Your task to perform on an android device: turn notification dots on Image 0: 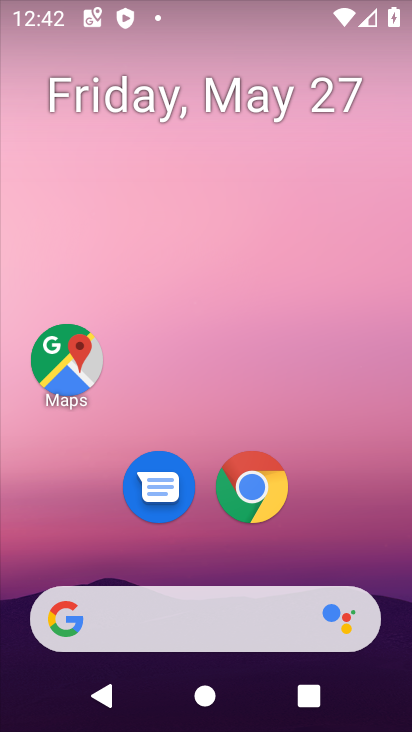
Step 0: drag from (207, 573) to (212, 141)
Your task to perform on an android device: turn notification dots on Image 1: 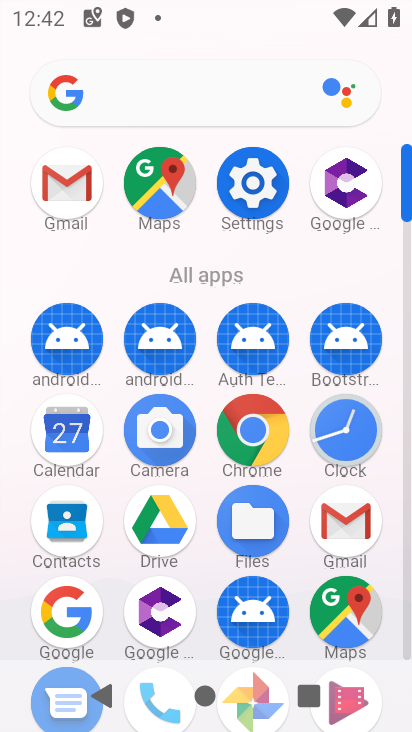
Step 1: click (249, 194)
Your task to perform on an android device: turn notification dots on Image 2: 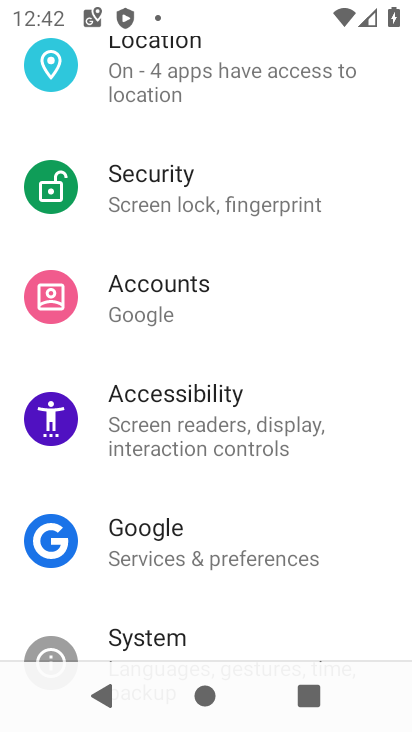
Step 2: drag from (249, 189) to (293, 617)
Your task to perform on an android device: turn notification dots on Image 3: 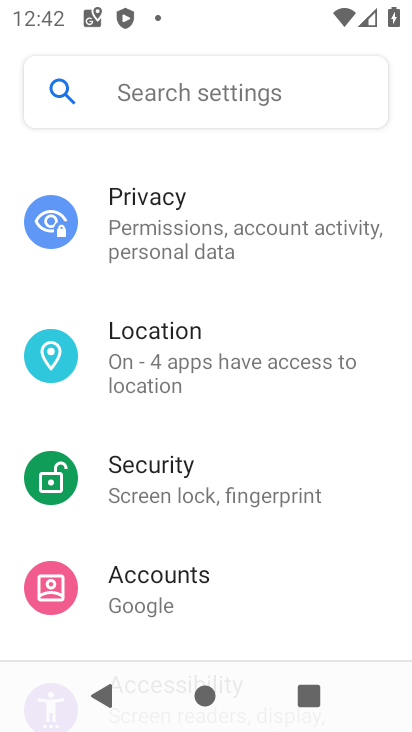
Step 3: drag from (225, 205) to (336, 577)
Your task to perform on an android device: turn notification dots on Image 4: 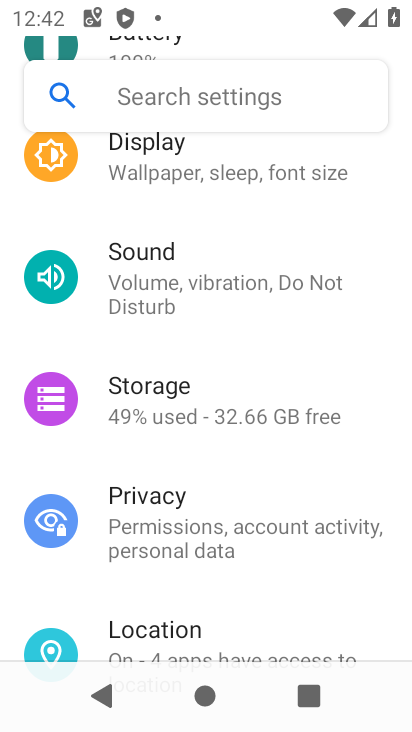
Step 4: drag from (191, 143) to (289, 533)
Your task to perform on an android device: turn notification dots on Image 5: 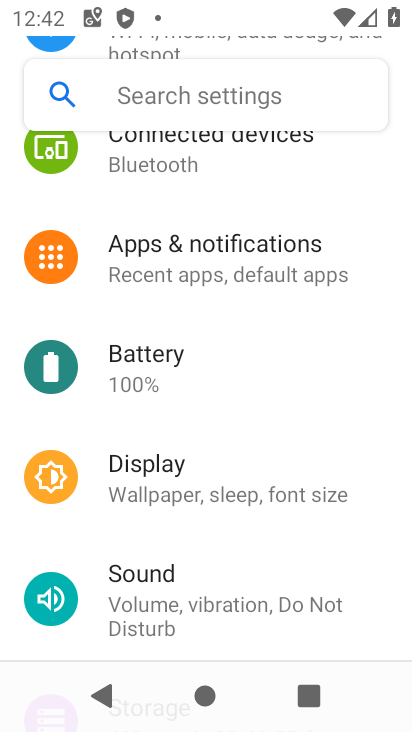
Step 5: click (151, 250)
Your task to perform on an android device: turn notification dots on Image 6: 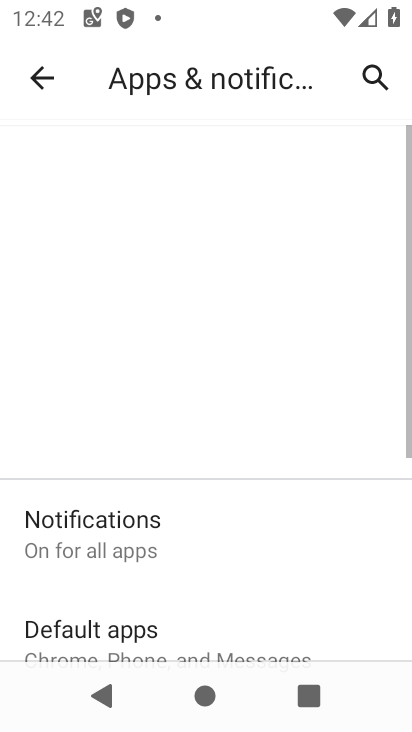
Step 6: click (111, 529)
Your task to perform on an android device: turn notification dots on Image 7: 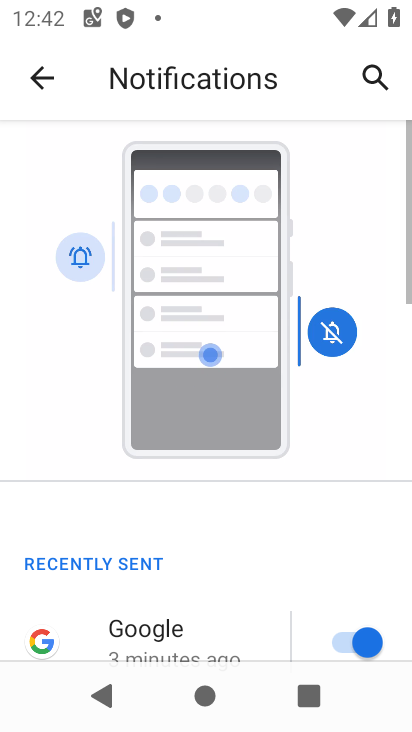
Step 7: drag from (176, 558) to (233, 11)
Your task to perform on an android device: turn notification dots on Image 8: 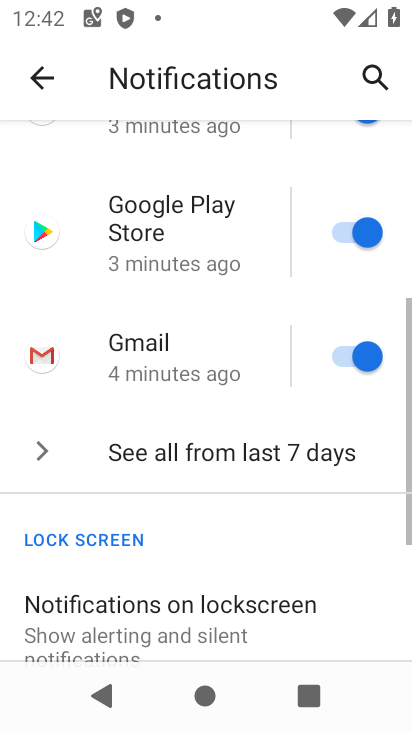
Step 8: drag from (212, 549) to (209, 1)
Your task to perform on an android device: turn notification dots on Image 9: 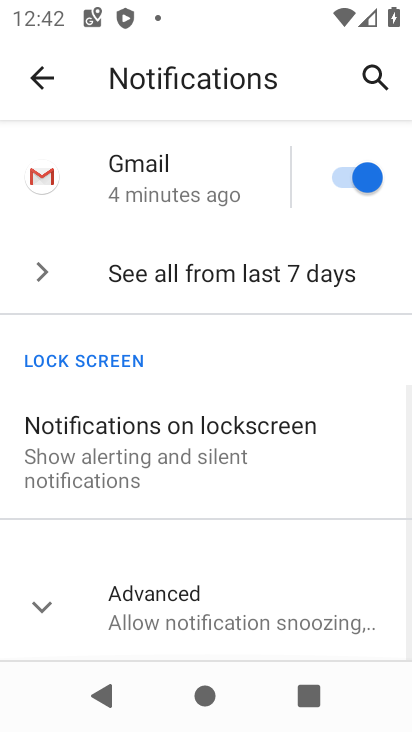
Step 9: click (160, 595)
Your task to perform on an android device: turn notification dots on Image 10: 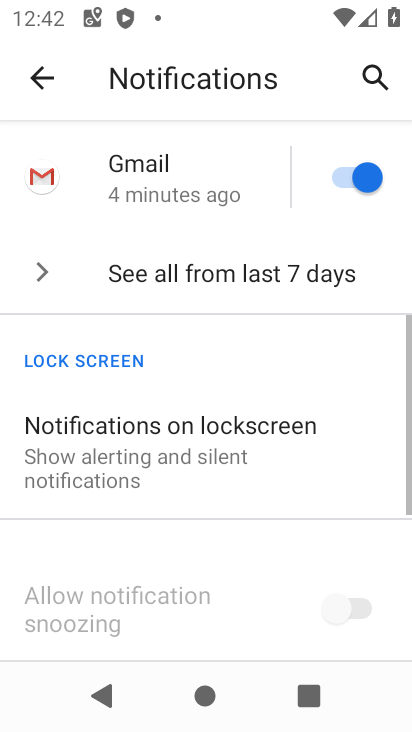
Step 10: task complete